Your task to perform on an android device: Find coffee shops on Maps Image 0: 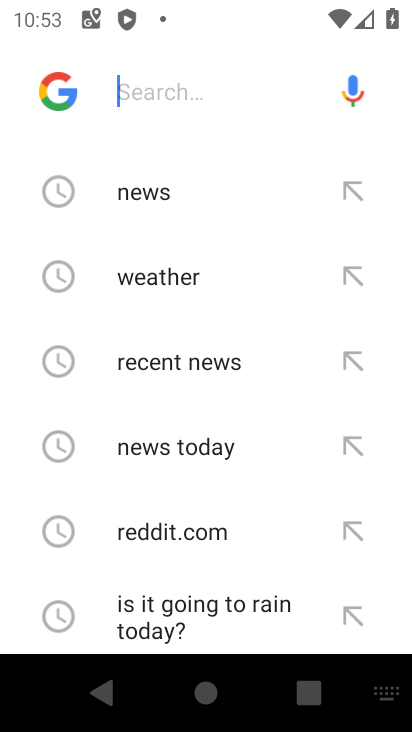
Step 0: drag from (211, 425) to (250, 33)
Your task to perform on an android device: Find coffee shops on Maps Image 1: 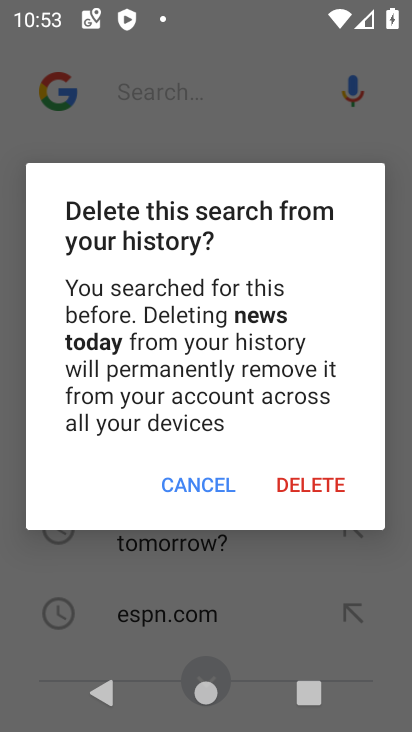
Step 1: click (174, 463)
Your task to perform on an android device: Find coffee shops on Maps Image 2: 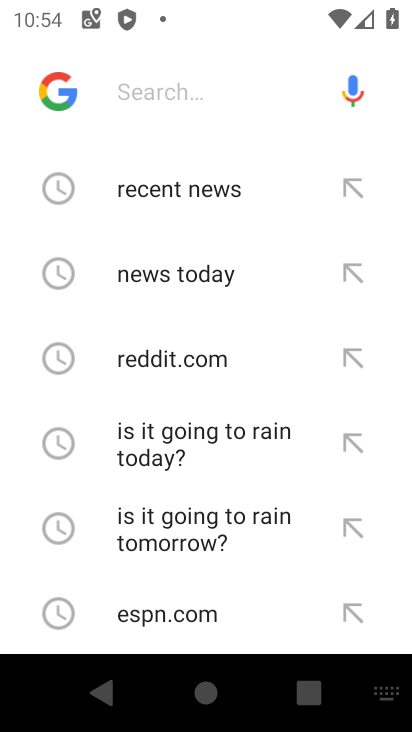
Step 2: press back button
Your task to perform on an android device: Find coffee shops on Maps Image 3: 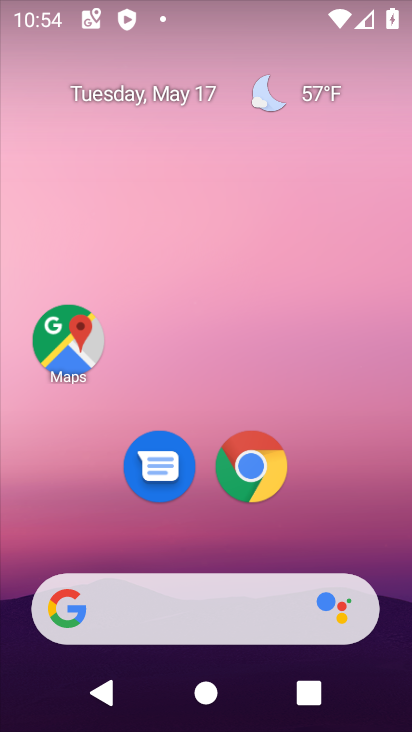
Step 3: click (74, 330)
Your task to perform on an android device: Find coffee shops on Maps Image 4: 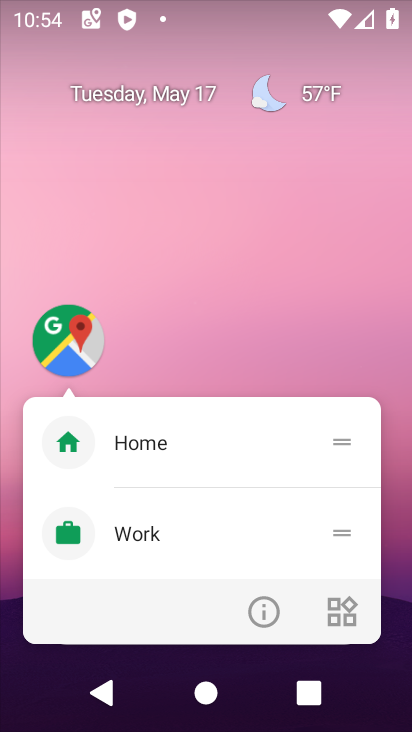
Step 4: click (74, 330)
Your task to perform on an android device: Find coffee shops on Maps Image 5: 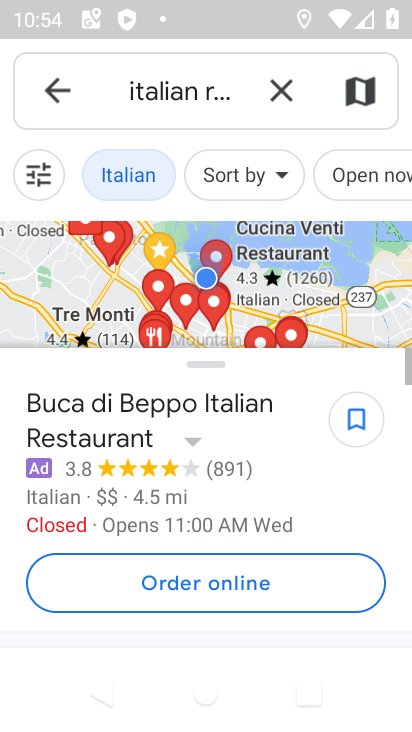
Step 5: click (268, 86)
Your task to perform on an android device: Find coffee shops on Maps Image 6: 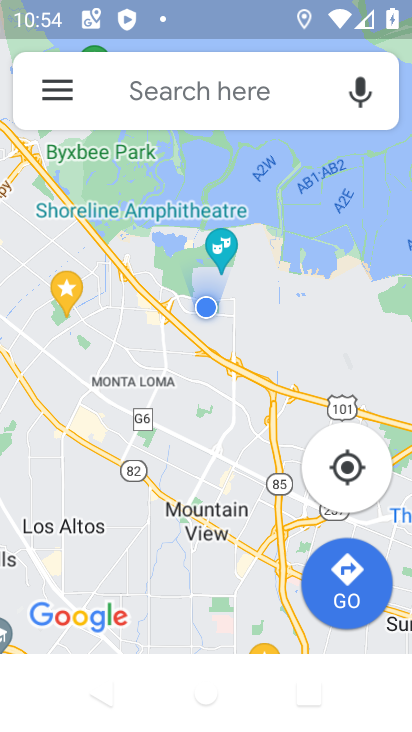
Step 6: click (200, 114)
Your task to perform on an android device: Find coffee shops on Maps Image 7: 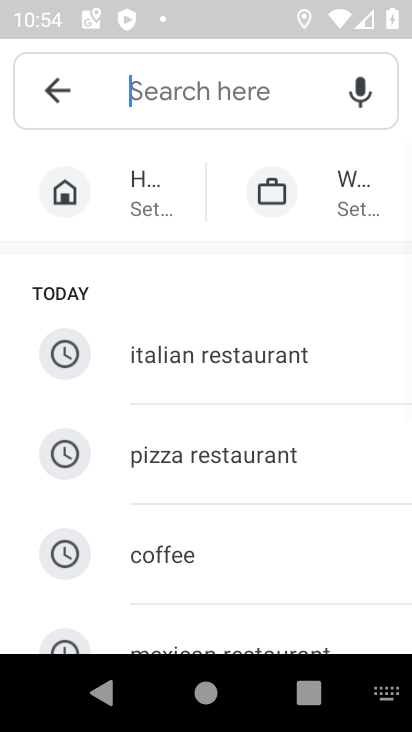
Step 7: click (158, 532)
Your task to perform on an android device: Find coffee shops on Maps Image 8: 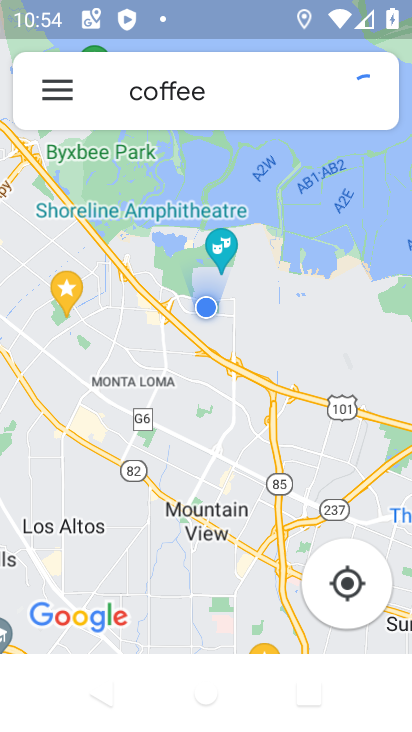
Step 8: task complete